Your task to perform on an android device: turn on airplane mode Image 0: 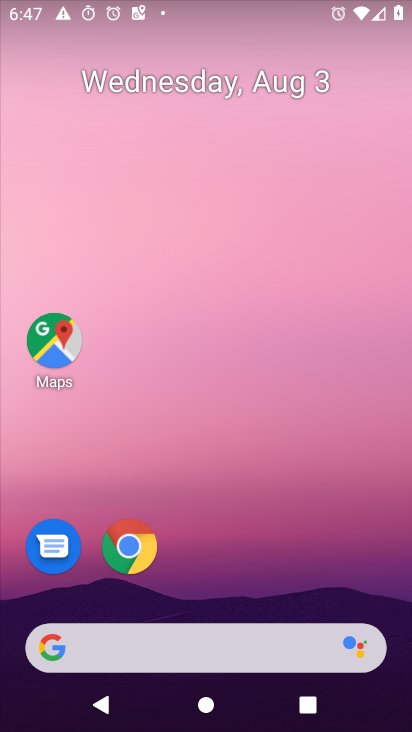
Step 0: drag from (213, 2) to (182, 469)
Your task to perform on an android device: turn on airplane mode Image 1: 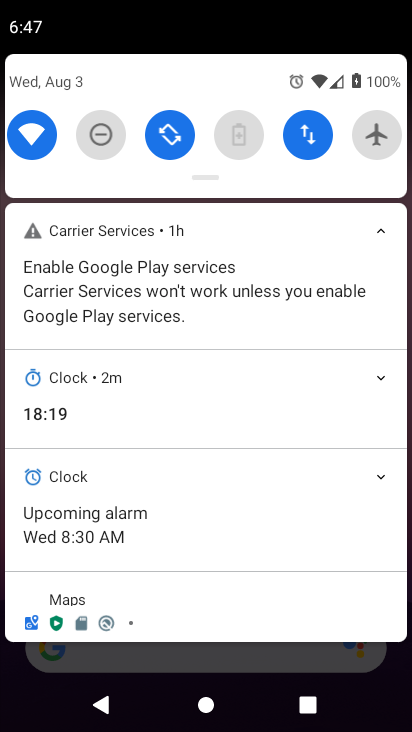
Step 1: click (373, 133)
Your task to perform on an android device: turn on airplane mode Image 2: 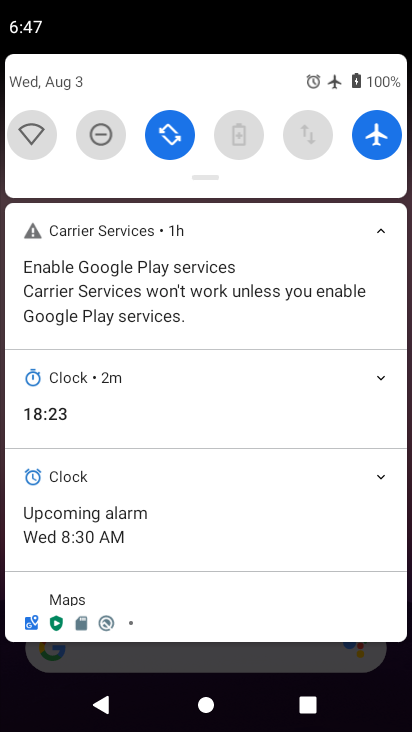
Step 2: task complete